Your task to perform on an android device: Add alienware aurora to the cart on walmart Image 0: 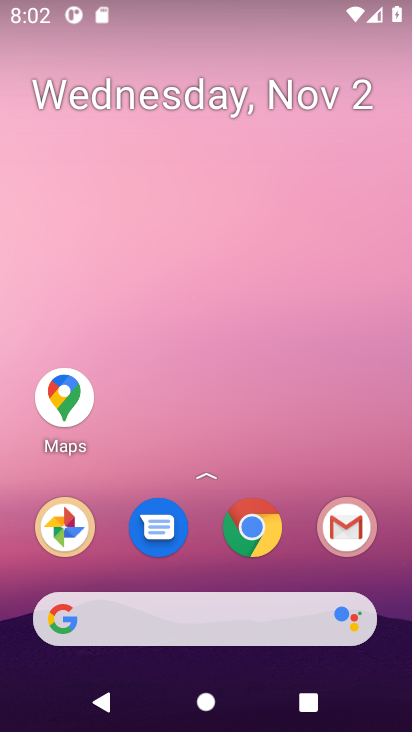
Step 0: click (255, 525)
Your task to perform on an android device: Add alienware aurora to the cart on walmart Image 1: 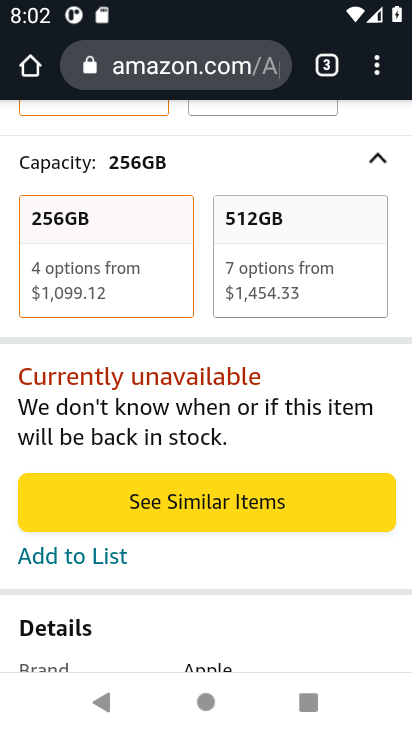
Step 1: click (208, 69)
Your task to perform on an android device: Add alienware aurora to the cart on walmart Image 2: 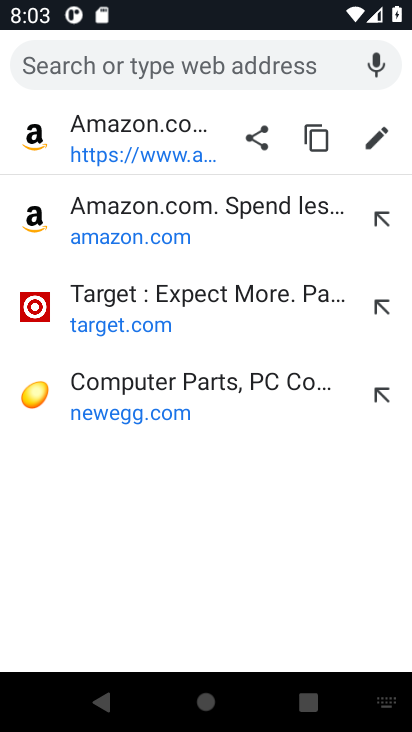
Step 2: type "walmart"
Your task to perform on an android device: Add alienware aurora to the cart on walmart Image 3: 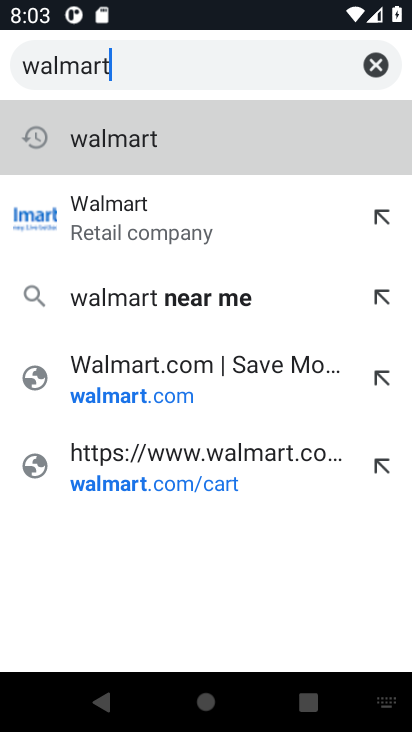
Step 3: click (135, 143)
Your task to perform on an android device: Add alienware aurora to the cart on walmart Image 4: 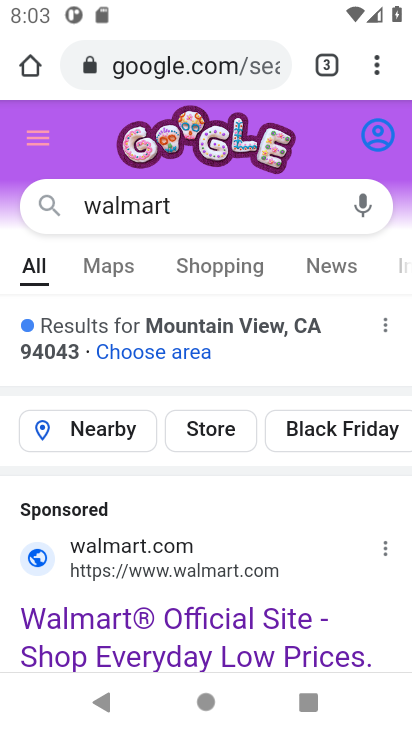
Step 4: drag from (221, 488) to (170, 0)
Your task to perform on an android device: Add alienware aurora to the cart on walmart Image 5: 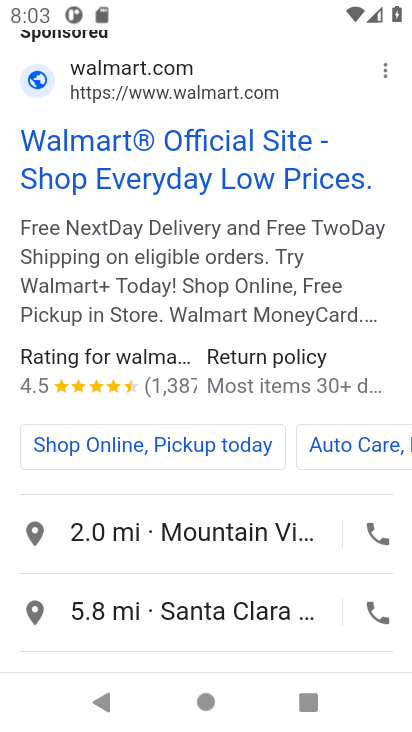
Step 5: drag from (163, 485) to (129, 105)
Your task to perform on an android device: Add alienware aurora to the cart on walmart Image 6: 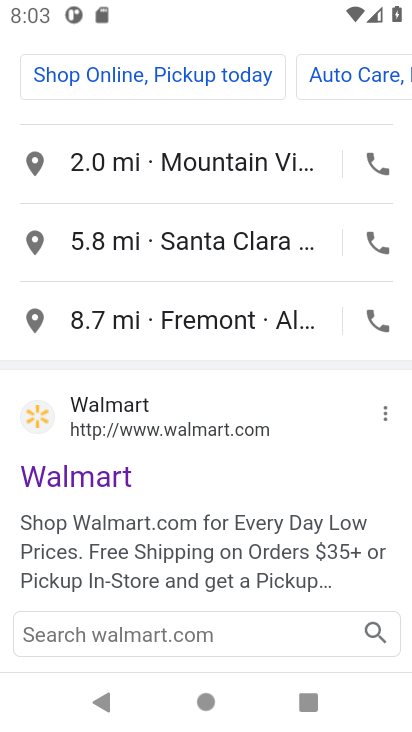
Step 6: click (72, 492)
Your task to perform on an android device: Add alienware aurora to the cart on walmart Image 7: 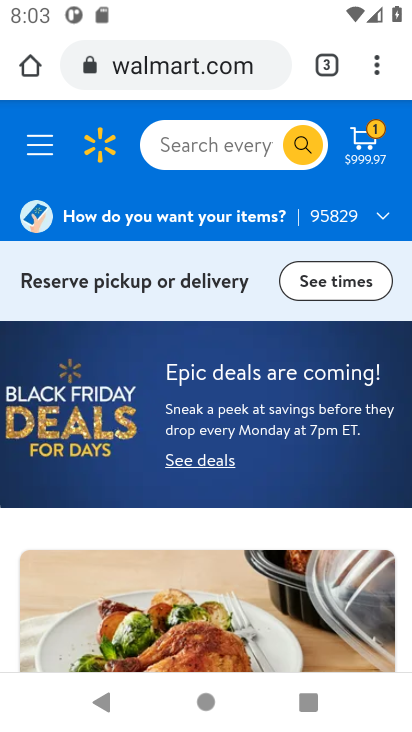
Step 7: click (209, 147)
Your task to perform on an android device: Add alienware aurora to the cart on walmart Image 8: 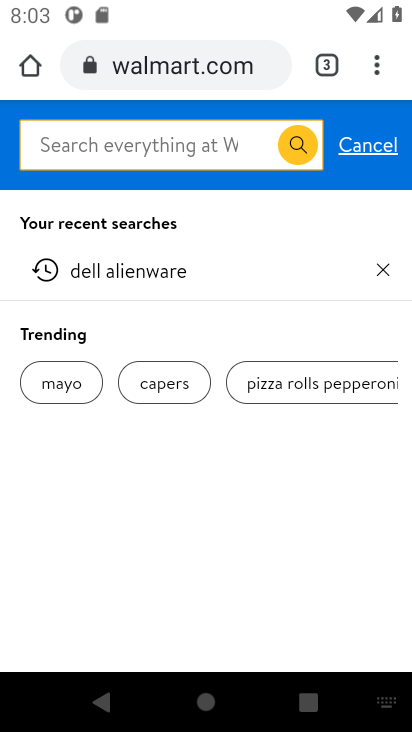
Step 8: type "alienware aurora"
Your task to perform on an android device: Add alienware aurora to the cart on walmart Image 9: 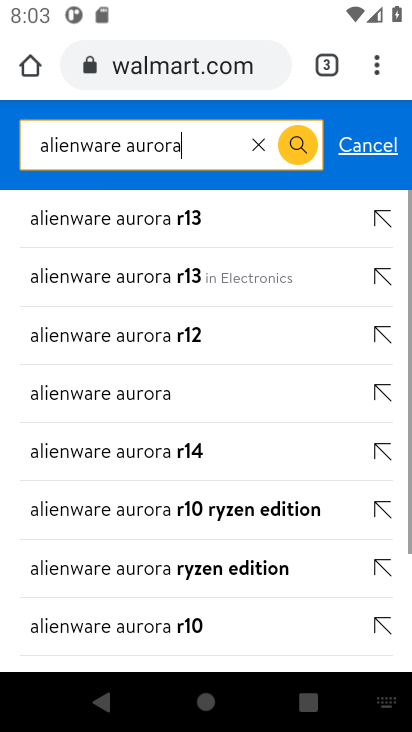
Step 9: press enter
Your task to perform on an android device: Add alienware aurora to the cart on walmart Image 10: 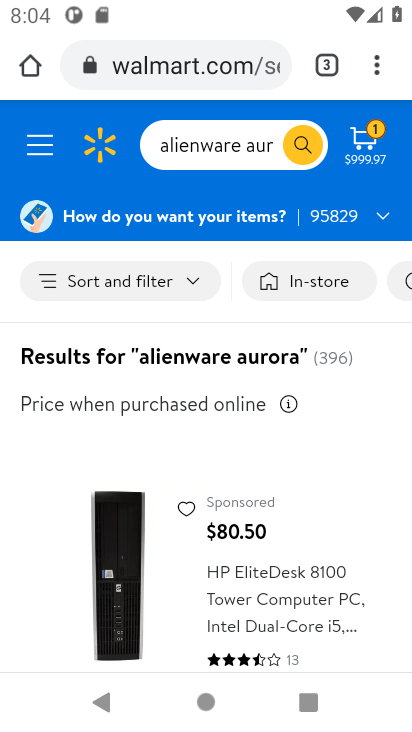
Step 10: drag from (364, 514) to (290, 14)
Your task to perform on an android device: Add alienware aurora to the cart on walmart Image 11: 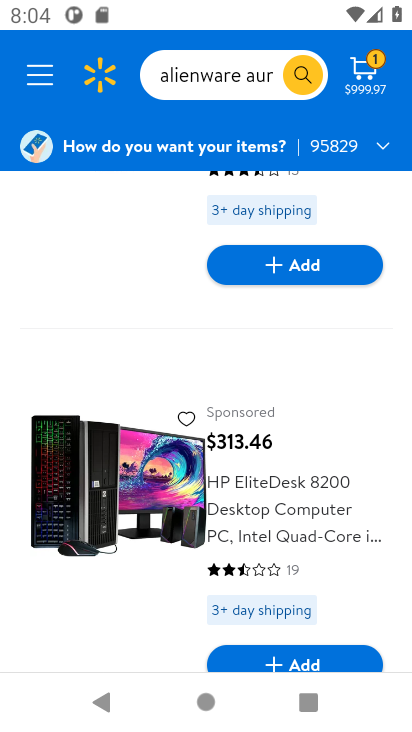
Step 11: drag from (352, 591) to (289, 92)
Your task to perform on an android device: Add alienware aurora to the cart on walmart Image 12: 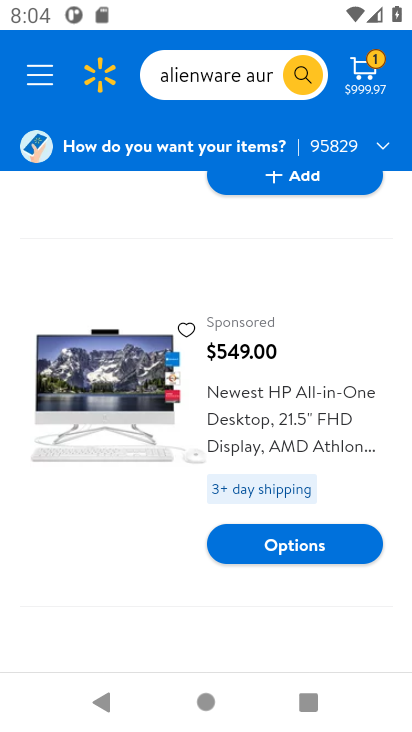
Step 12: drag from (335, 606) to (252, 105)
Your task to perform on an android device: Add alienware aurora to the cart on walmart Image 13: 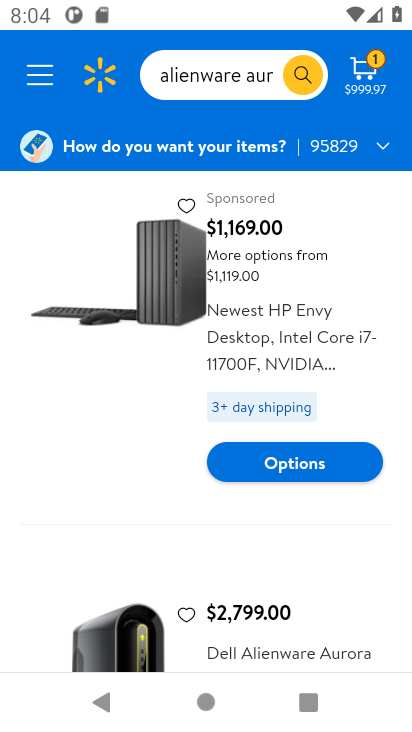
Step 13: drag from (315, 528) to (290, 407)
Your task to perform on an android device: Add alienware aurora to the cart on walmart Image 14: 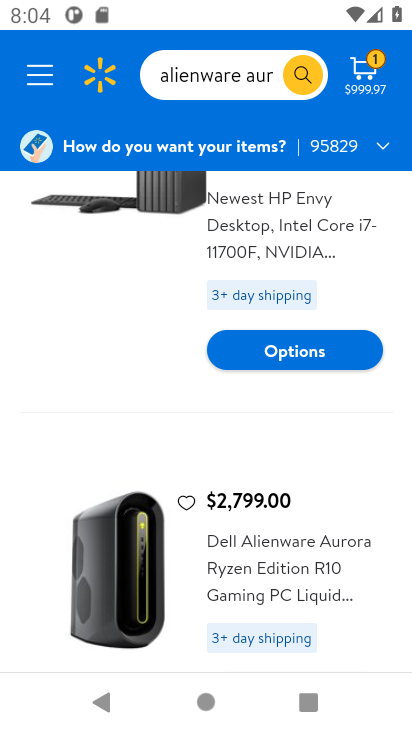
Step 14: drag from (373, 433) to (358, 256)
Your task to perform on an android device: Add alienware aurora to the cart on walmart Image 15: 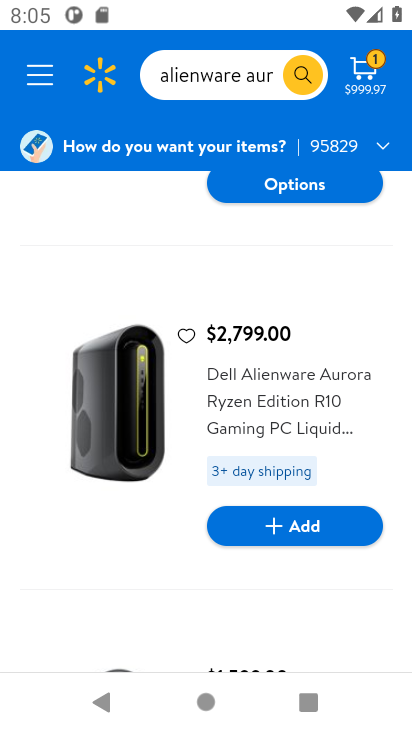
Step 15: click (274, 529)
Your task to perform on an android device: Add alienware aurora to the cart on walmart Image 16: 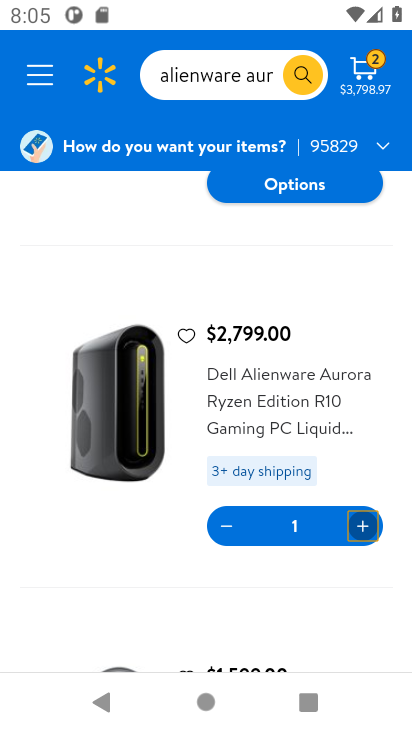
Step 16: task complete